Your task to perform on an android device: Open ESPN.com Image 0: 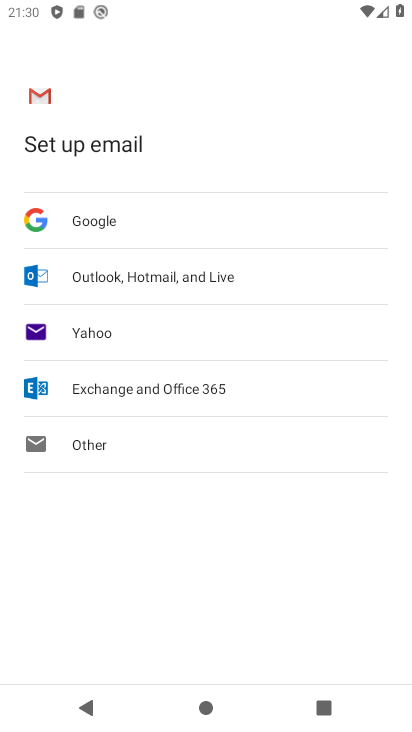
Step 0: press home button
Your task to perform on an android device: Open ESPN.com Image 1: 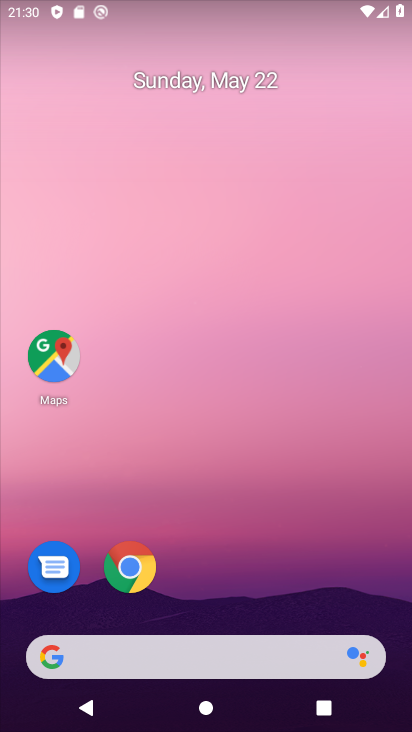
Step 1: click (123, 563)
Your task to perform on an android device: Open ESPN.com Image 2: 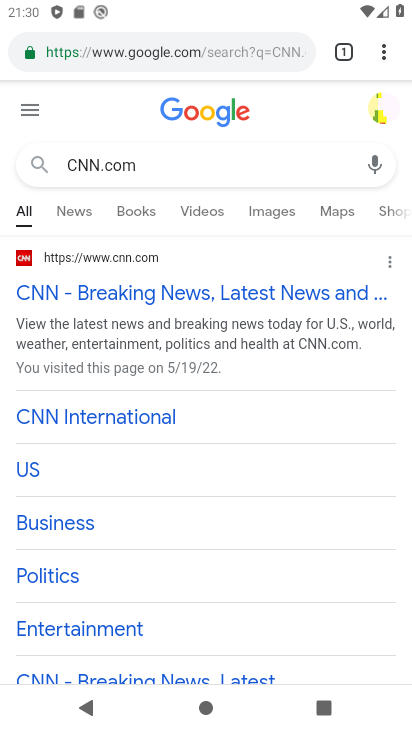
Step 2: click (264, 163)
Your task to perform on an android device: Open ESPN.com Image 3: 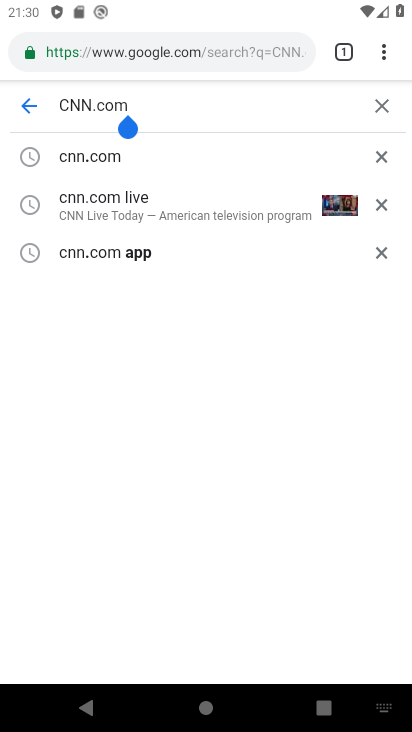
Step 3: click (384, 101)
Your task to perform on an android device: Open ESPN.com Image 4: 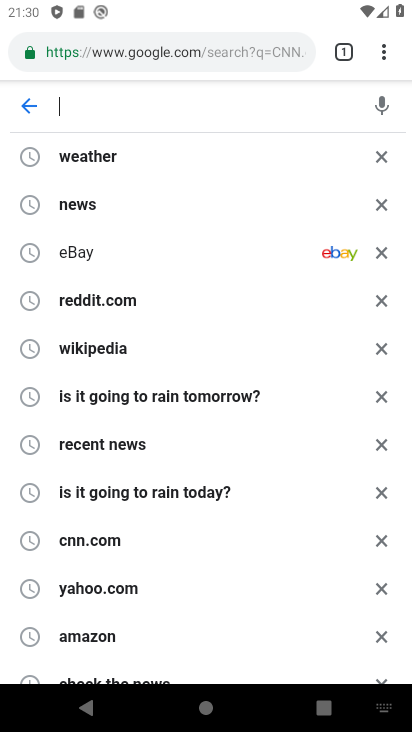
Step 4: click (132, 91)
Your task to perform on an android device: Open ESPN.com Image 5: 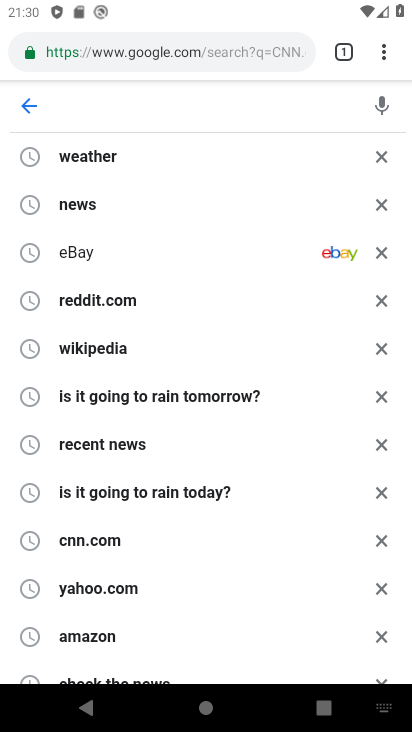
Step 5: type " ESPN.com"
Your task to perform on an android device: Open ESPN.com Image 6: 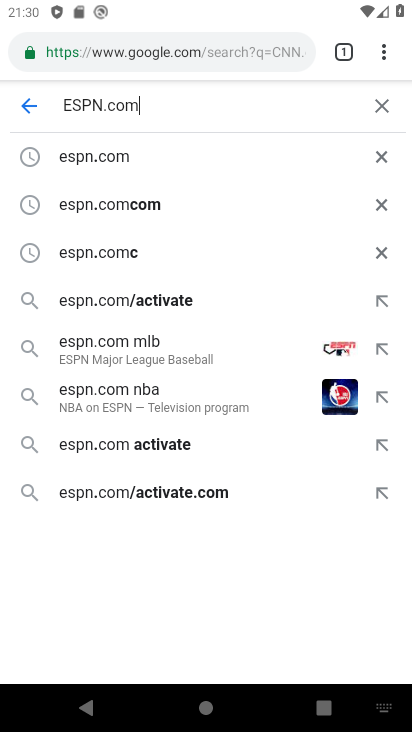
Step 6: click (85, 106)
Your task to perform on an android device: Open ESPN.com Image 7: 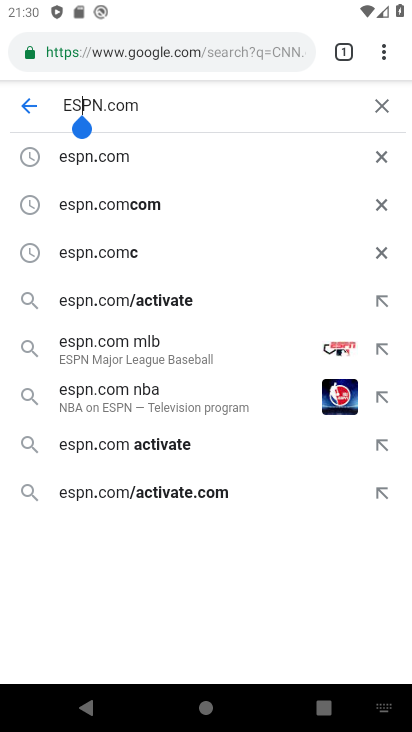
Step 7: click (78, 162)
Your task to perform on an android device: Open ESPN.com Image 8: 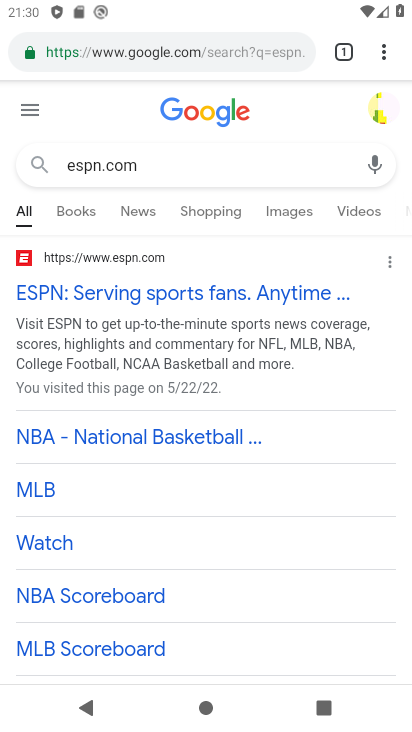
Step 8: task complete